Your task to perform on an android device: open wifi settings Image 0: 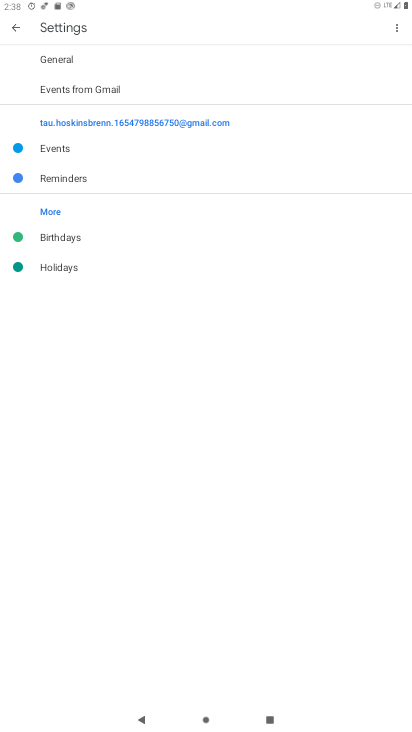
Step 0: press home button
Your task to perform on an android device: open wifi settings Image 1: 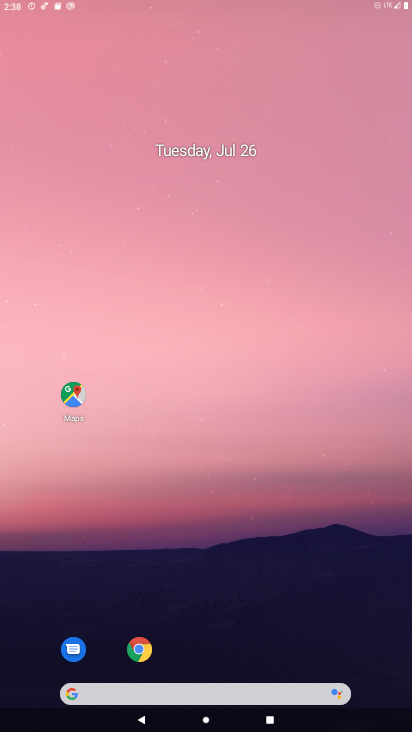
Step 1: drag from (357, 659) to (132, 82)
Your task to perform on an android device: open wifi settings Image 2: 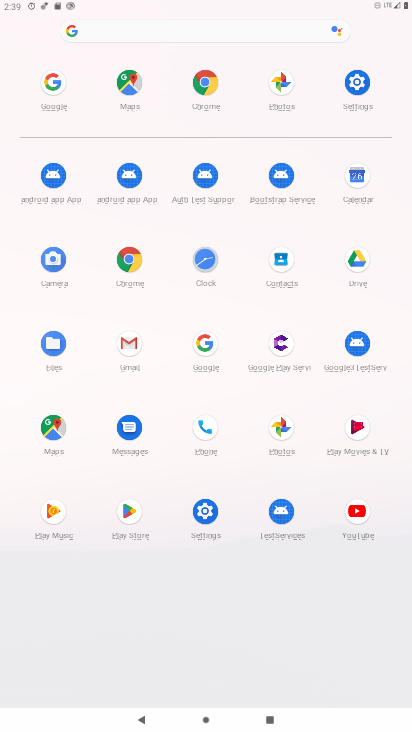
Step 2: click (197, 531)
Your task to perform on an android device: open wifi settings Image 3: 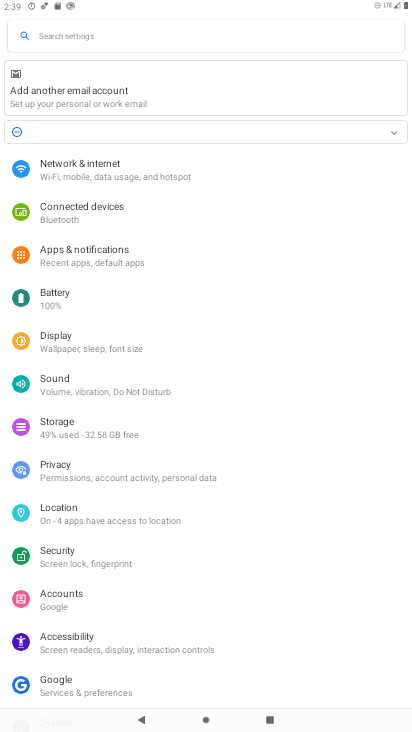
Step 3: click (117, 184)
Your task to perform on an android device: open wifi settings Image 4: 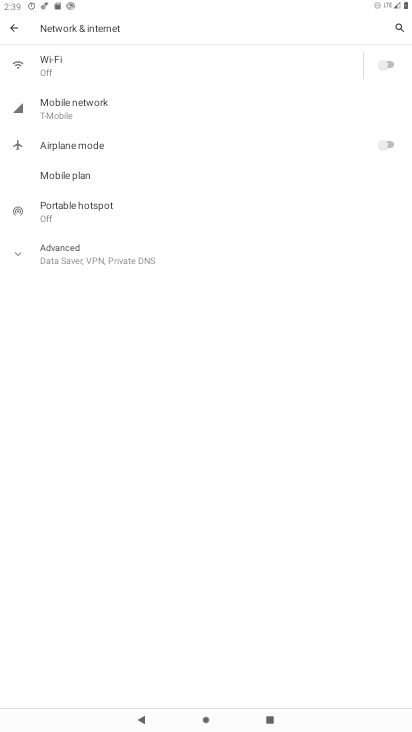
Step 4: click (141, 75)
Your task to perform on an android device: open wifi settings Image 5: 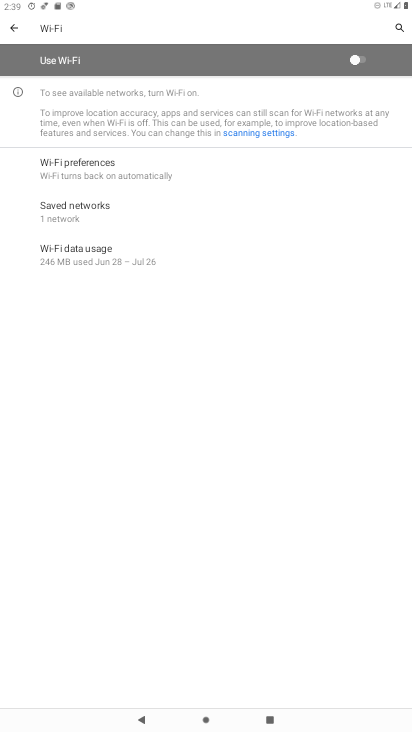
Step 5: task complete